Your task to perform on an android device: What's the weather today? Image 0: 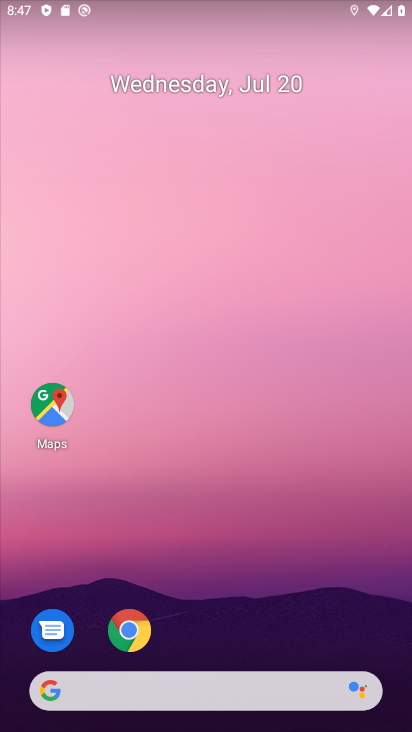
Step 0: drag from (191, 671) to (206, 207)
Your task to perform on an android device: What's the weather today? Image 1: 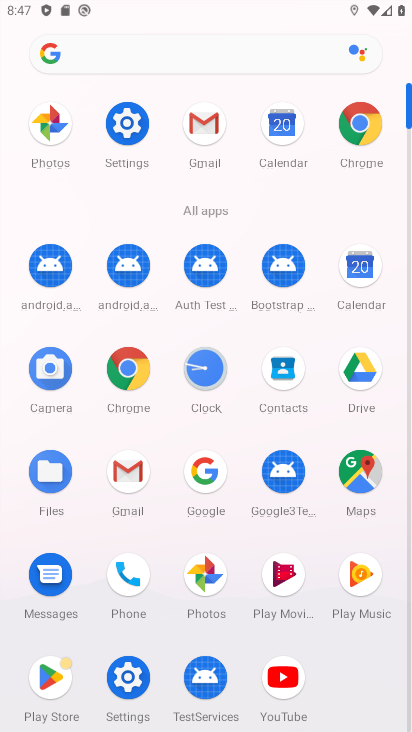
Step 1: click (126, 366)
Your task to perform on an android device: What's the weather today? Image 2: 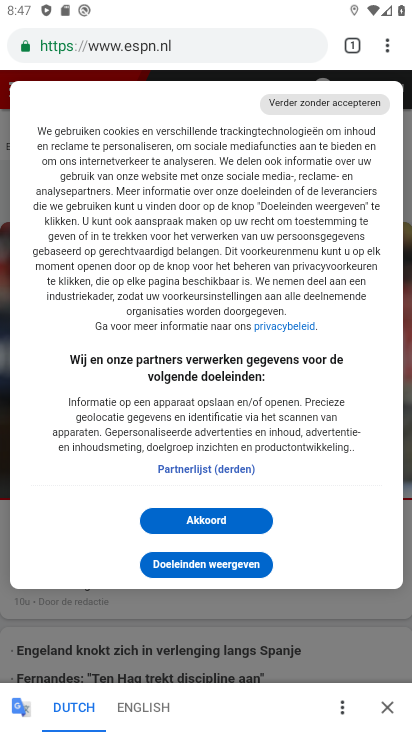
Step 2: click (202, 52)
Your task to perform on an android device: What's the weather today? Image 3: 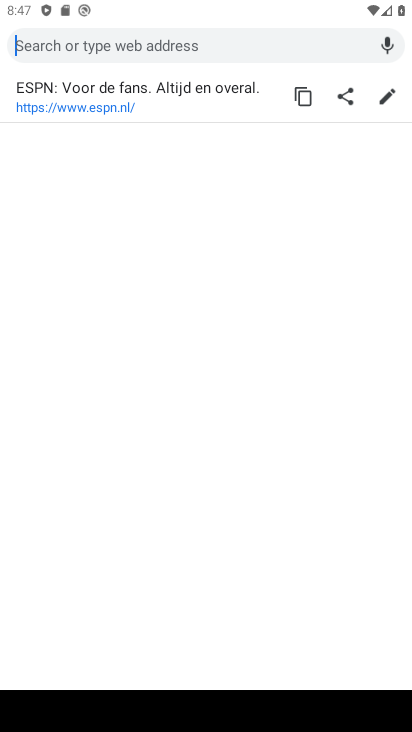
Step 3: type "weather today"
Your task to perform on an android device: What's the weather today? Image 4: 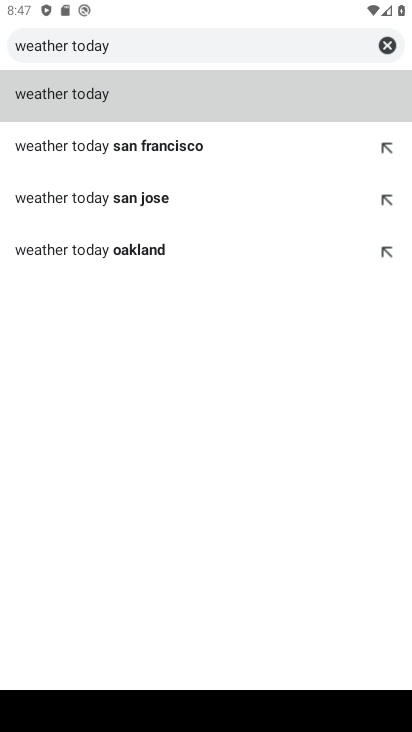
Step 4: click (122, 97)
Your task to perform on an android device: What's the weather today? Image 5: 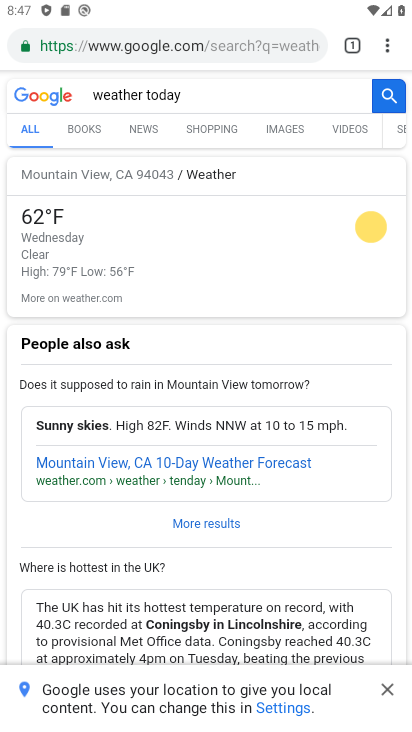
Step 5: task complete